Your task to perform on an android device: turn off airplane mode Image 0: 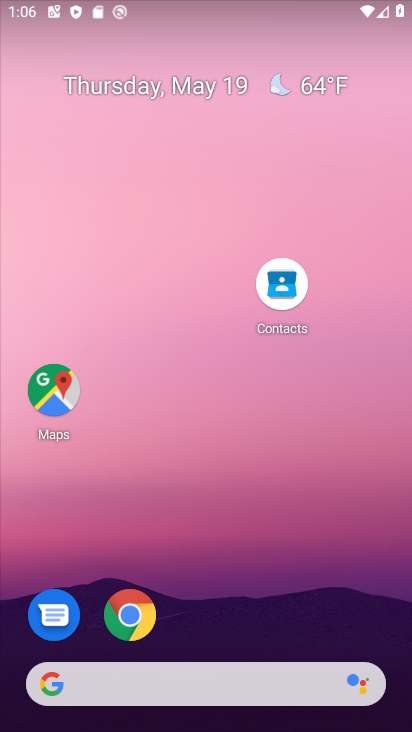
Step 0: drag from (266, 580) to (259, 212)
Your task to perform on an android device: turn off airplane mode Image 1: 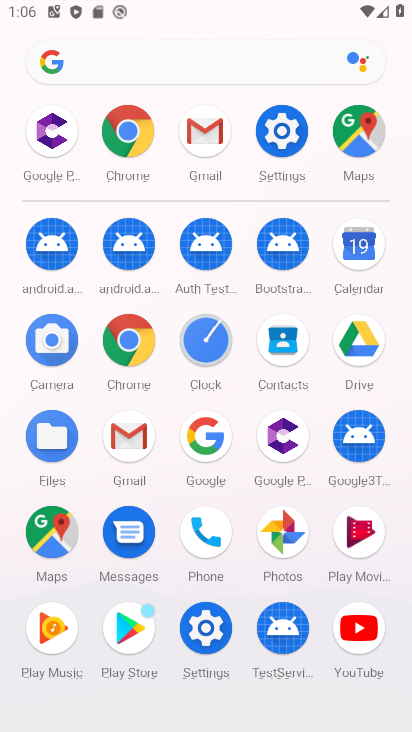
Step 1: click (281, 147)
Your task to perform on an android device: turn off airplane mode Image 2: 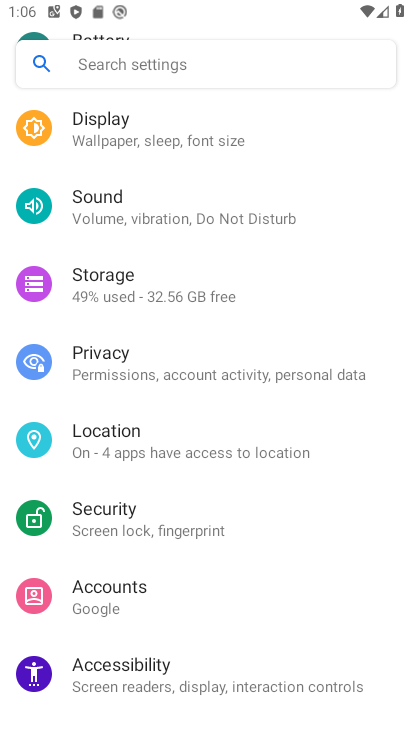
Step 2: drag from (296, 273) to (205, 585)
Your task to perform on an android device: turn off airplane mode Image 3: 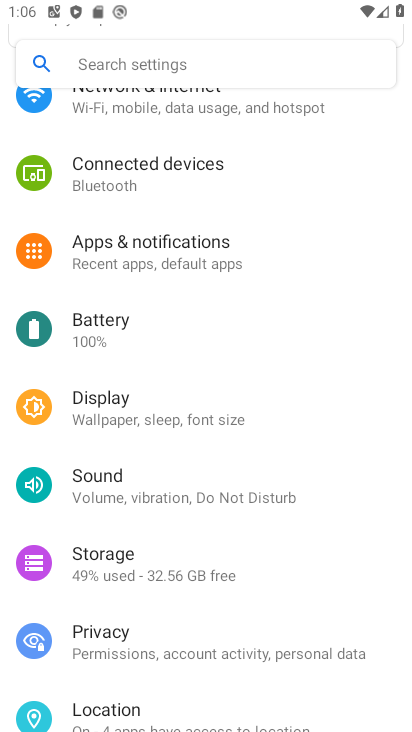
Step 3: drag from (199, 289) to (166, 506)
Your task to perform on an android device: turn off airplane mode Image 4: 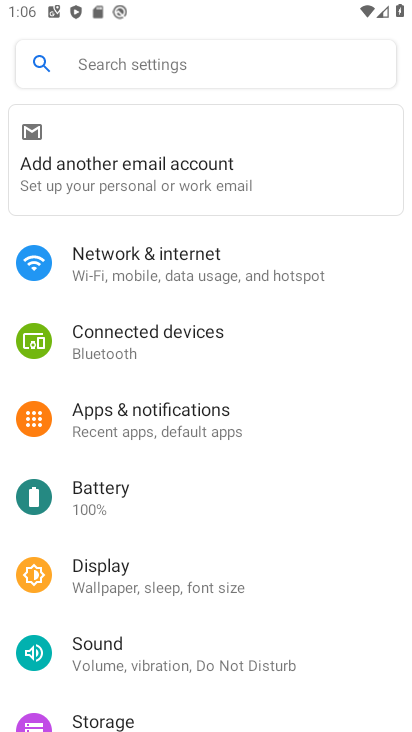
Step 4: drag from (191, 369) to (191, 498)
Your task to perform on an android device: turn off airplane mode Image 5: 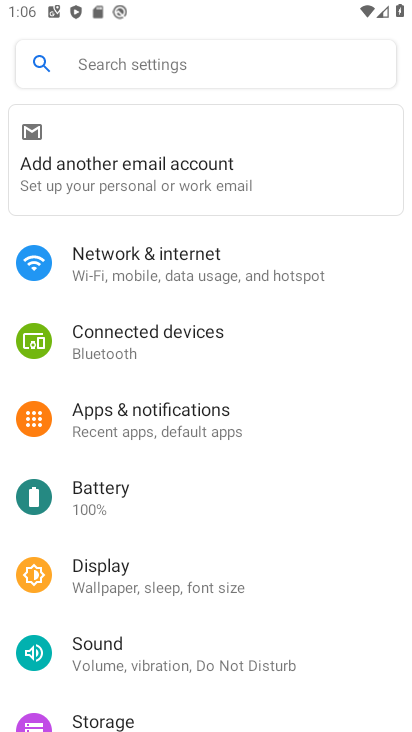
Step 5: click (254, 242)
Your task to perform on an android device: turn off airplane mode Image 6: 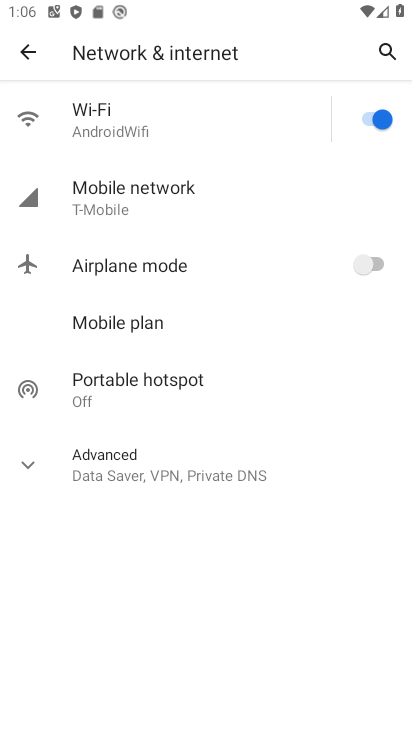
Step 6: task complete